Your task to perform on an android device: uninstall "ColorNote Notepad Notes" Image 0: 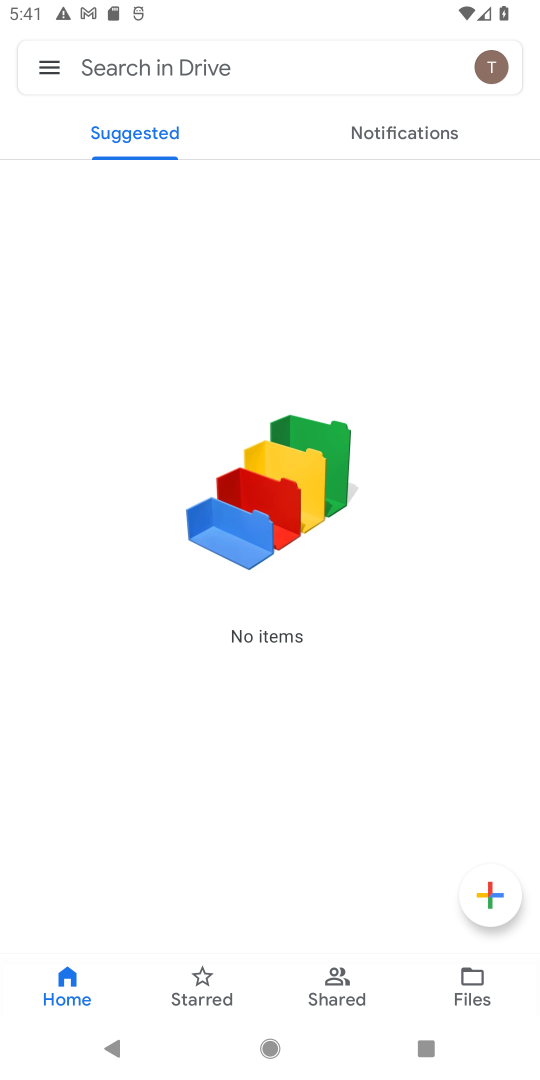
Step 0: press home button
Your task to perform on an android device: uninstall "ColorNote Notepad Notes" Image 1: 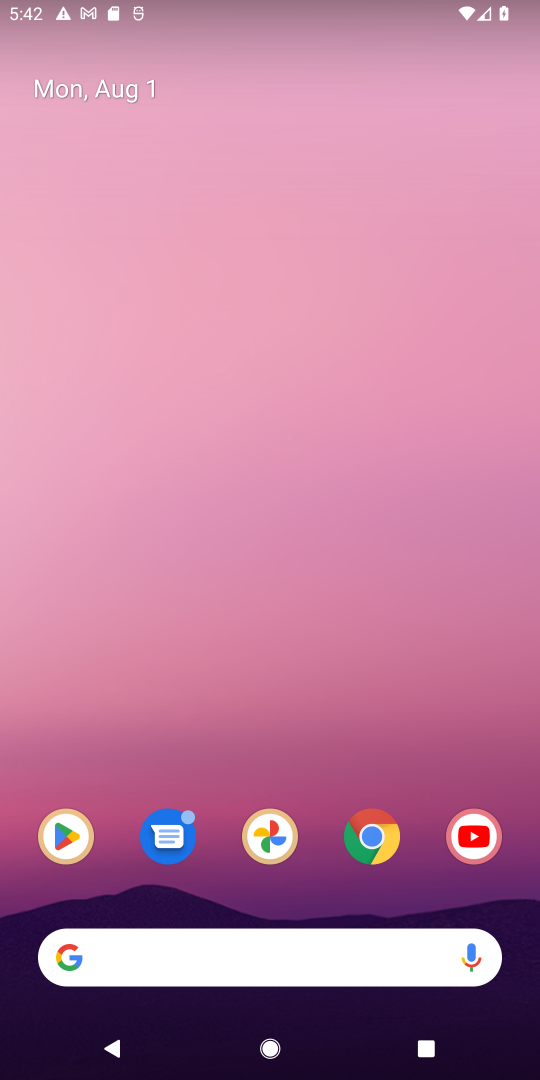
Step 1: click (65, 828)
Your task to perform on an android device: uninstall "ColorNote Notepad Notes" Image 2: 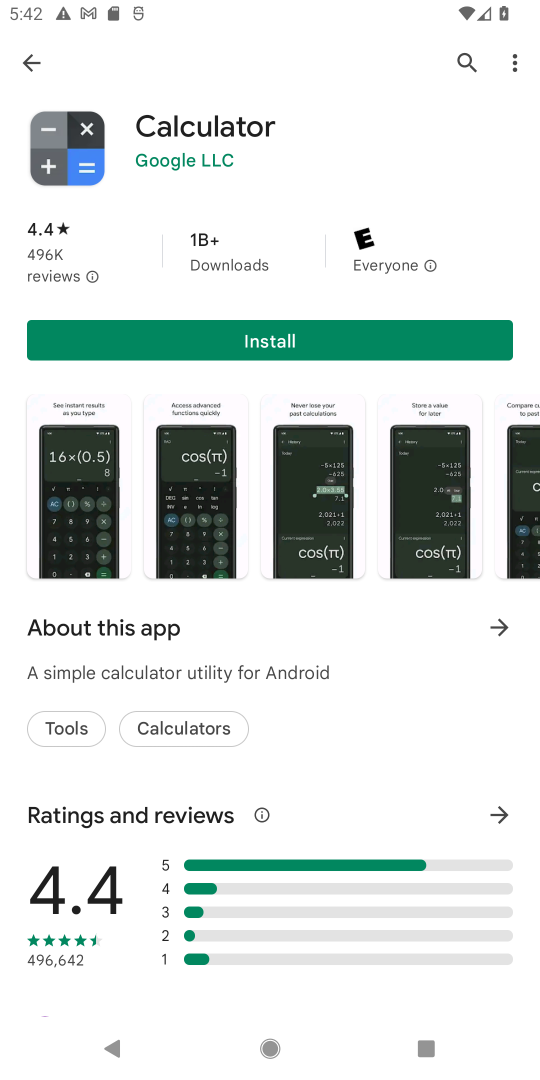
Step 2: click (461, 51)
Your task to perform on an android device: uninstall "ColorNote Notepad Notes" Image 3: 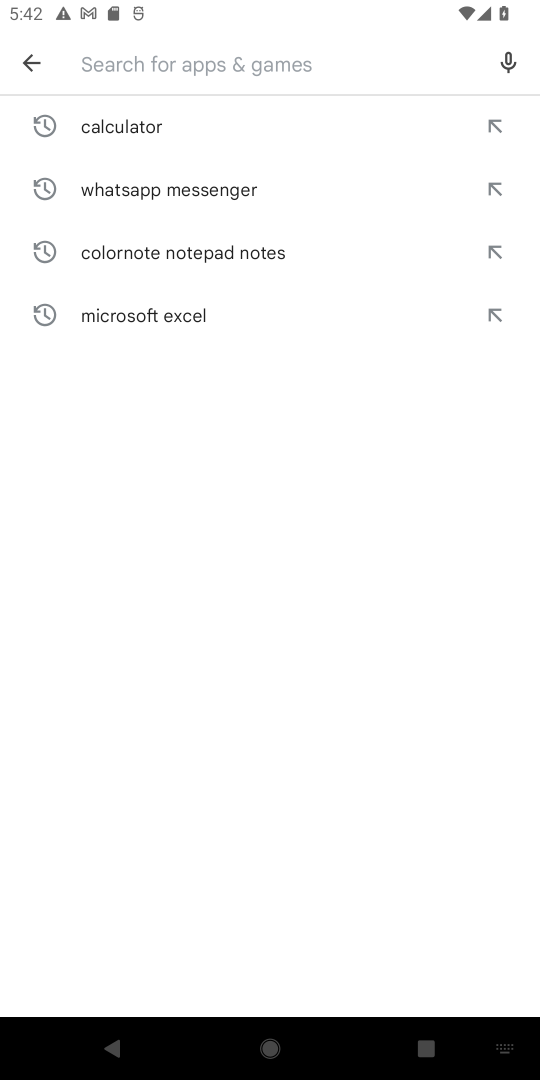
Step 3: click (228, 253)
Your task to perform on an android device: uninstall "ColorNote Notepad Notes" Image 4: 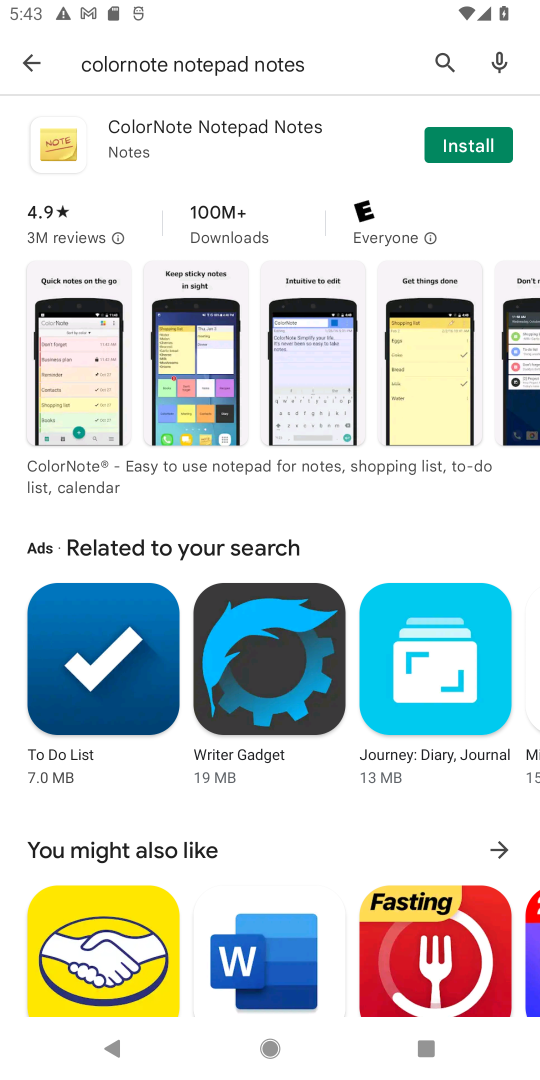
Step 4: task complete